Your task to perform on an android device: What's the weather? Image 0: 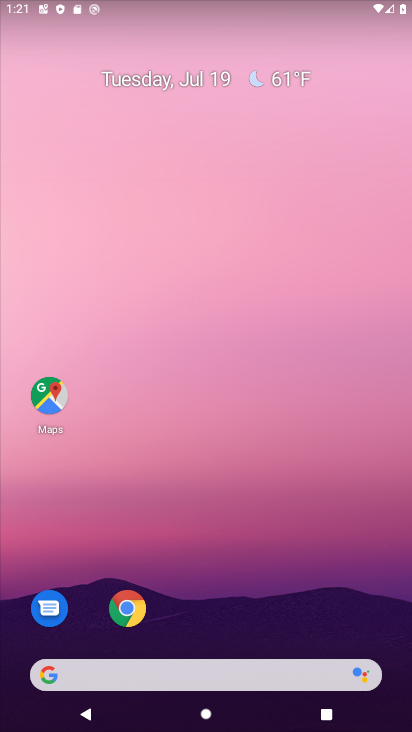
Step 0: drag from (200, 626) to (251, 106)
Your task to perform on an android device: What's the weather? Image 1: 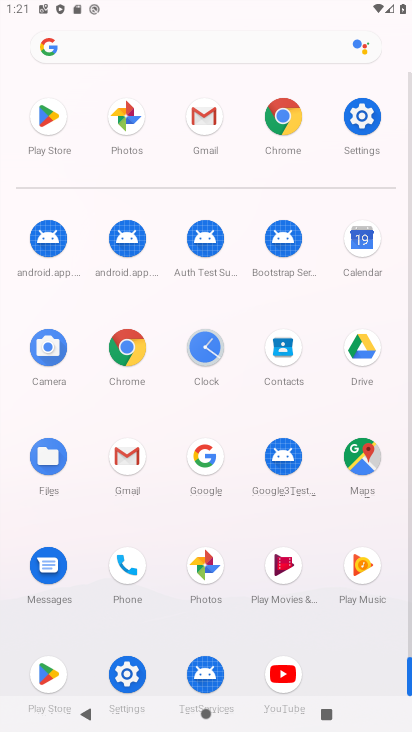
Step 1: click (197, 453)
Your task to perform on an android device: What's the weather? Image 2: 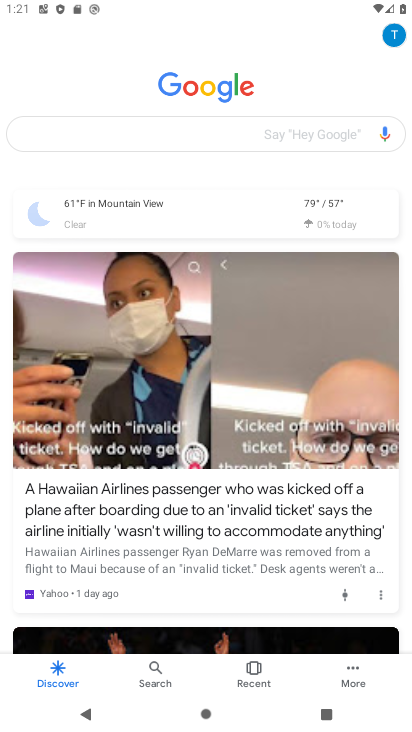
Step 2: click (142, 133)
Your task to perform on an android device: What's the weather? Image 3: 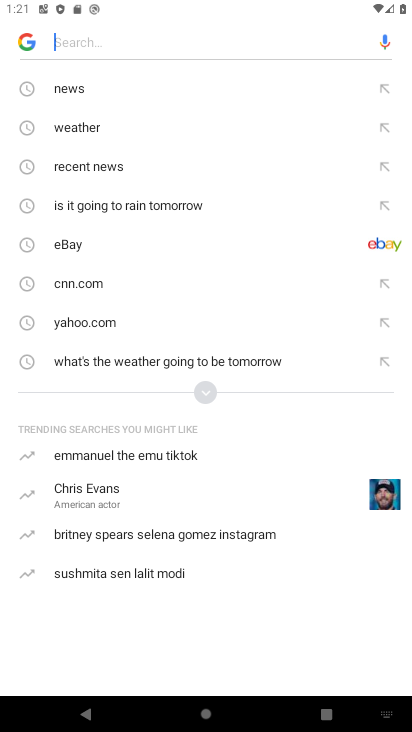
Step 3: type "whats the weather"
Your task to perform on an android device: What's the weather? Image 4: 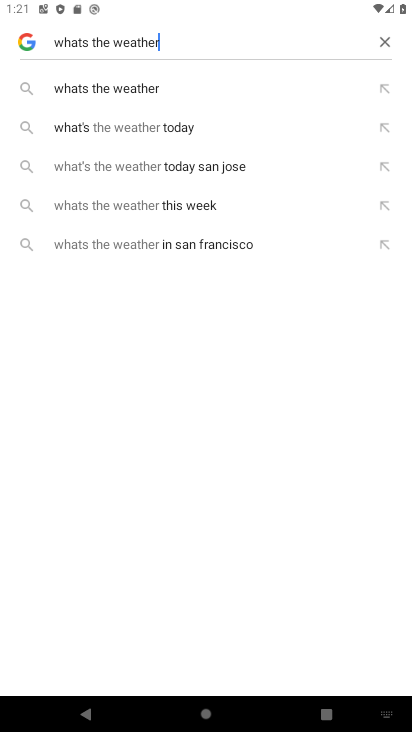
Step 4: click (118, 99)
Your task to perform on an android device: What's the weather? Image 5: 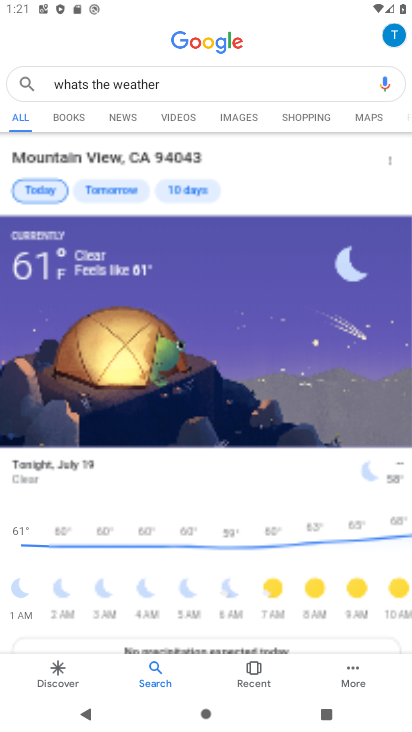
Step 5: task complete